Your task to perform on an android device: turn off javascript in the chrome app Image 0: 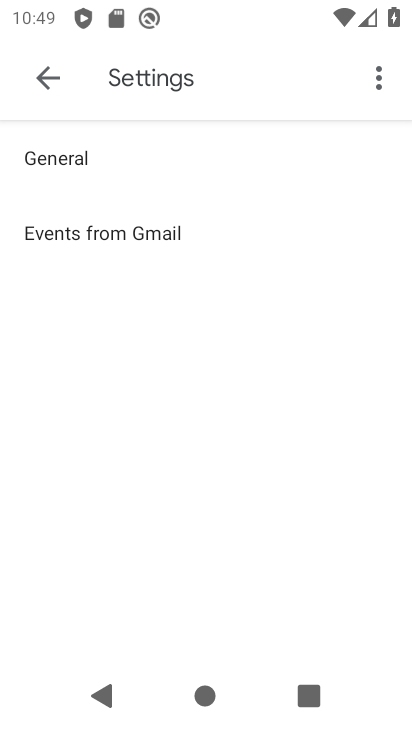
Step 0: press home button
Your task to perform on an android device: turn off javascript in the chrome app Image 1: 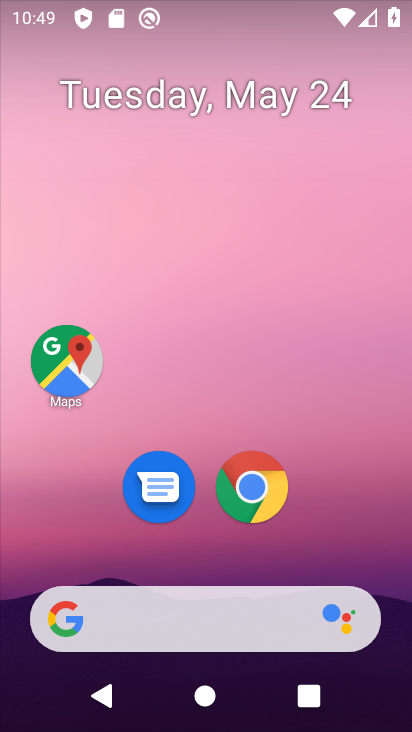
Step 1: click (258, 498)
Your task to perform on an android device: turn off javascript in the chrome app Image 2: 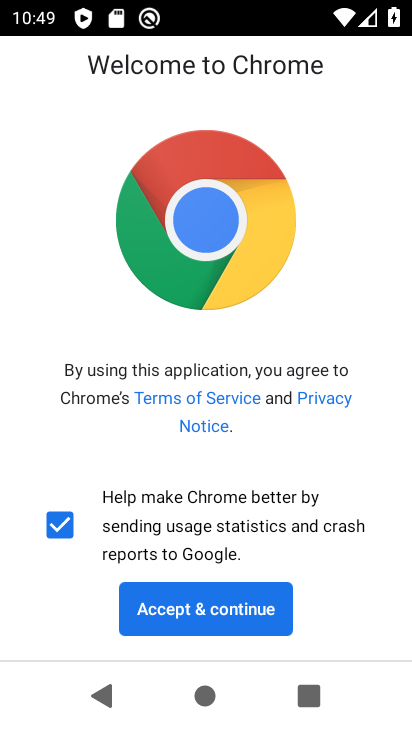
Step 2: click (254, 601)
Your task to perform on an android device: turn off javascript in the chrome app Image 3: 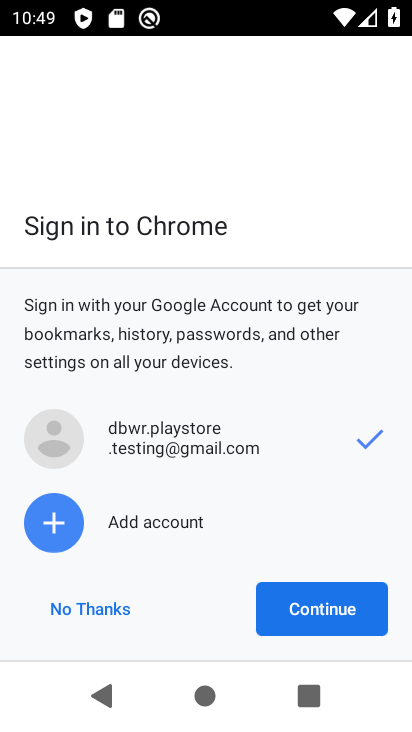
Step 3: click (283, 602)
Your task to perform on an android device: turn off javascript in the chrome app Image 4: 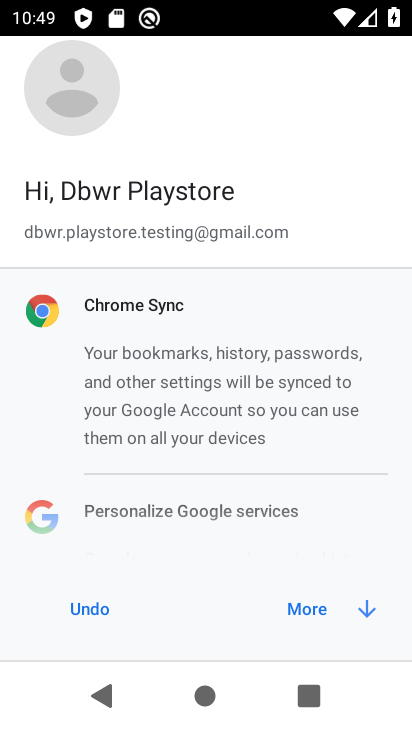
Step 4: click (283, 602)
Your task to perform on an android device: turn off javascript in the chrome app Image 5: 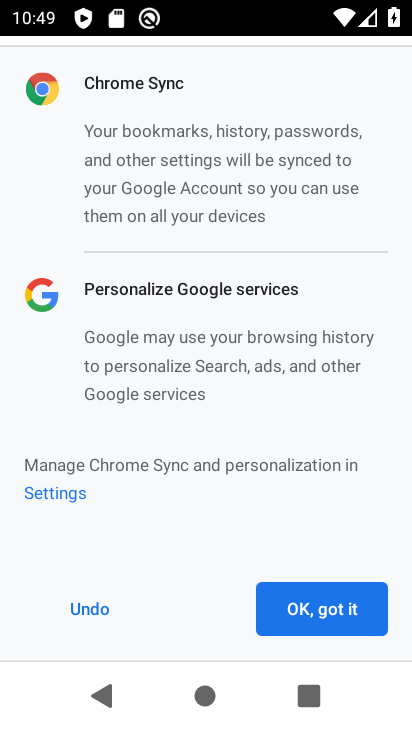
Step 5: click (283, 602)
Your task to perform on an android device: turn off javascript in the chrome app Image 6: 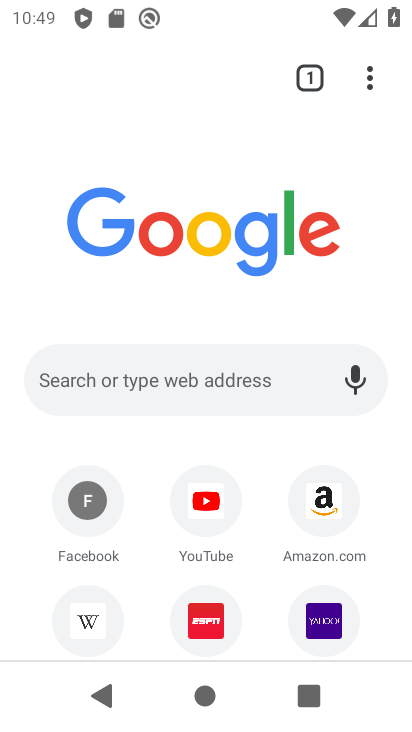
Step 6: click (361, 74)
Your task to perform on an android device: turn off javascript in the chrome app Image 7: 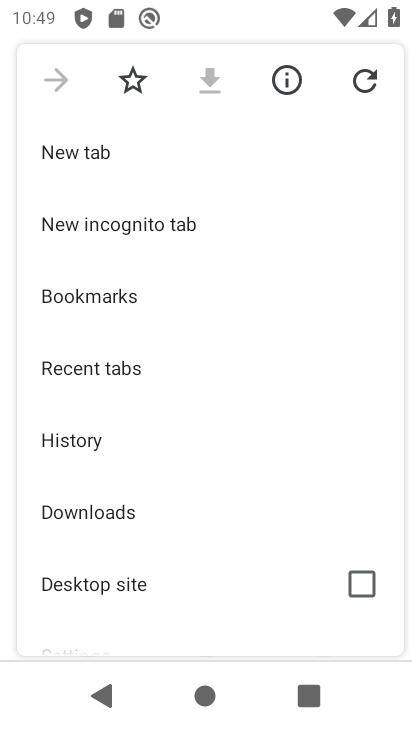
Step 7: drag from (219, 532) to (273, 191)
Your task to perform on an android device: turn off javascript in the chrome app Image 8: 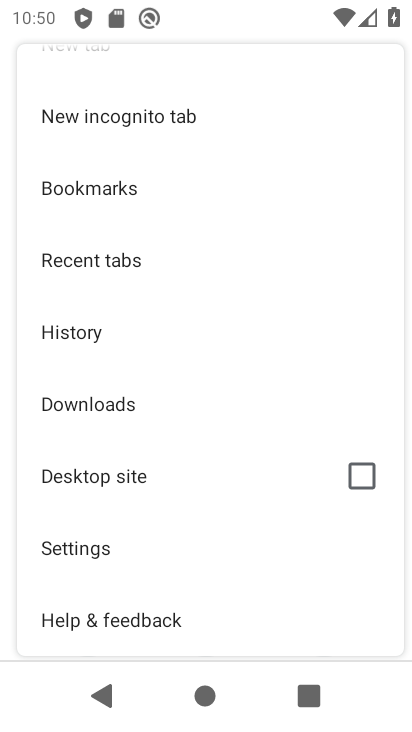
Step 8: click (145, 543)
Your task to perform on an android device: turn off javascript in the chrome app Image 9: 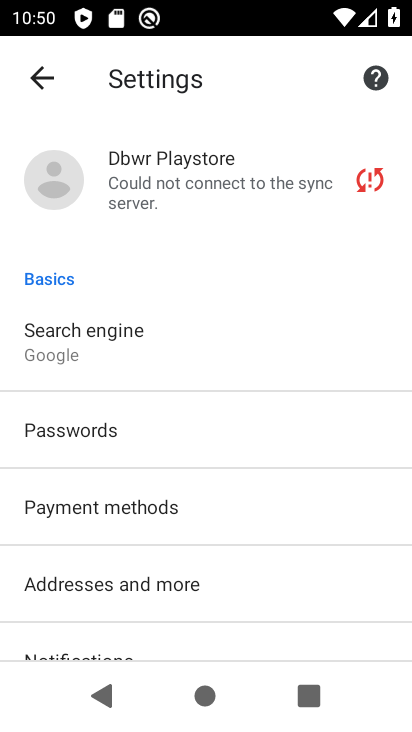
Step 9: drag from (241, 601) to (222, 248)
Your task to perform on an android device: turn off javascript in the chrome app Image 10: 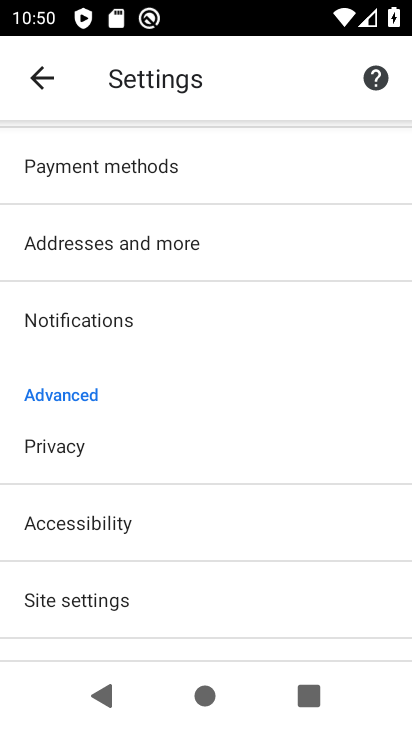
Step 10: click (238, 594)
Your task to perform on an android device: turn off javascript in the chrome app Image 11: 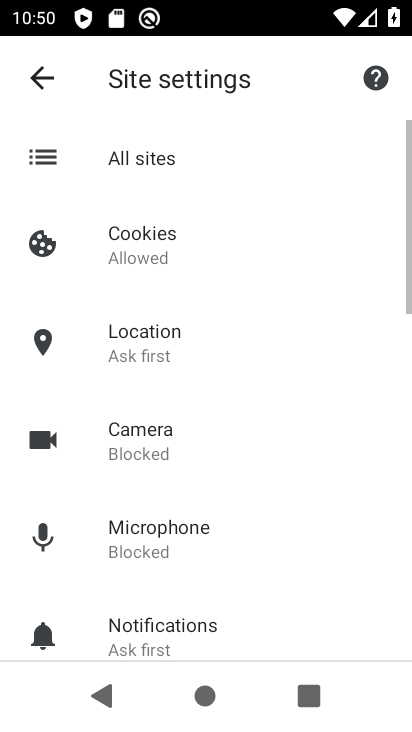
Step 11: drag from (240, 583) to (247, 252)
Your task to perform on an android device: turn off javascript in the chrome app Image 12: 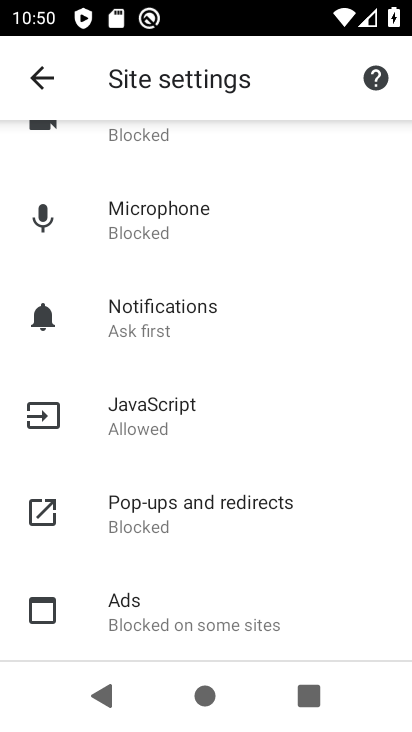
Step 12: click (233, 416)
Your task to perform on an android device: turn off javascript in the chrome app Image 13: 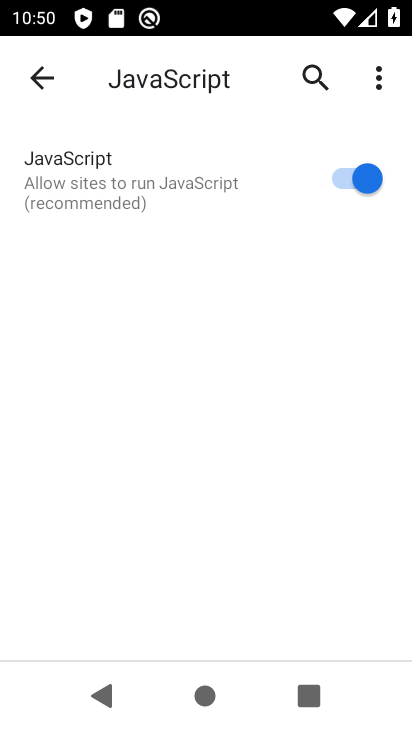
Step 13: click (335, 178)
Your task to perform on an android device: turn off javascript in the chrome app Image 14: 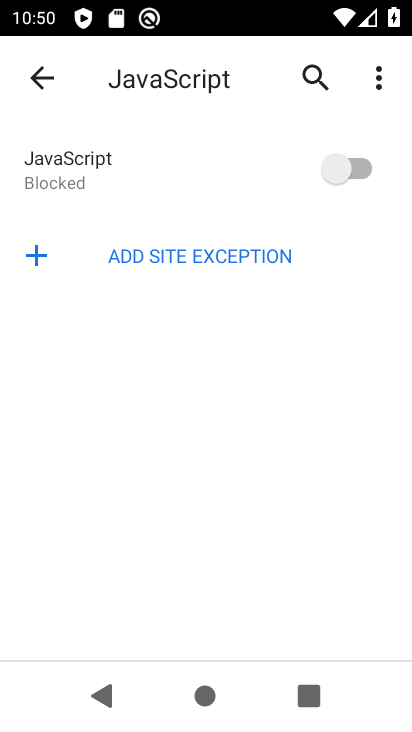
Step 14: task complete